Your task to perform on an android device: open app "The Home Depot" (install if not already installed) Image 0: 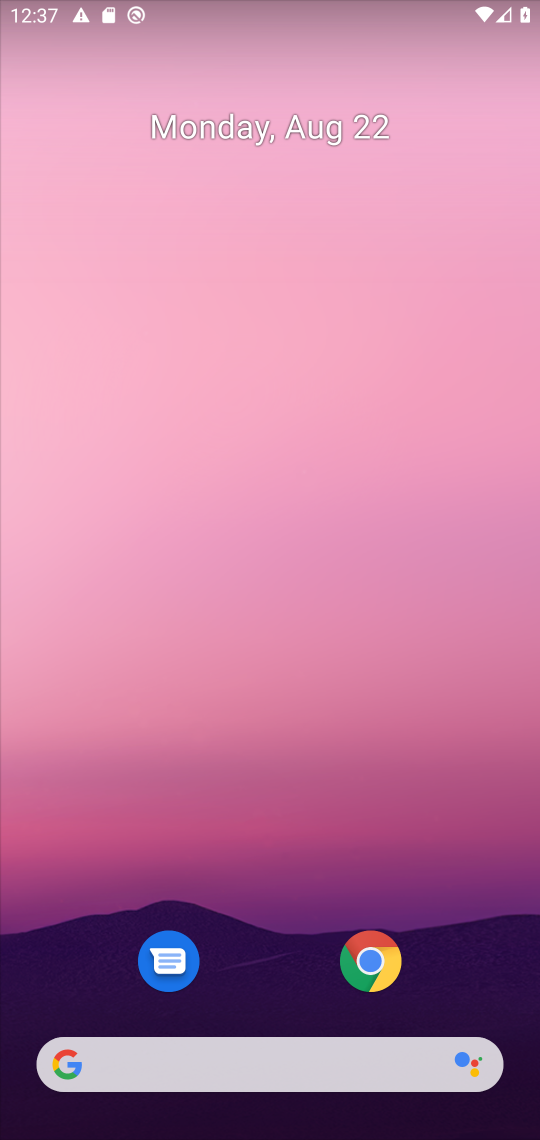
Step 0: drag from (493, 986) to (476, 147)
Your task to perform on an android device: open app "The Home Depot" (install if not already installed) Image 1: 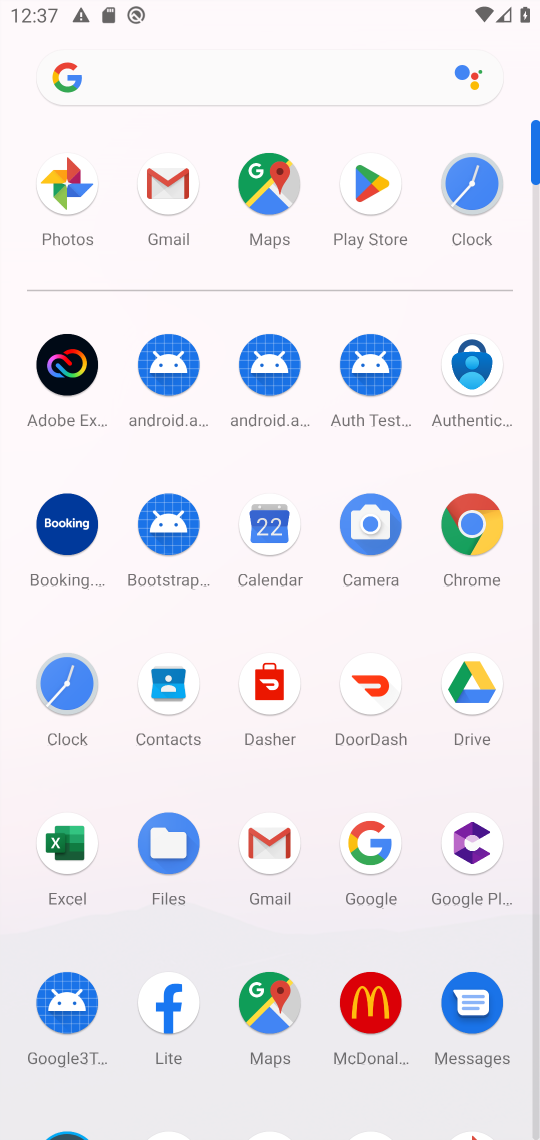
Step 1: click (367, 190)
Your task to perform on an android device: open app "The Home Depot" (install if not already installed) Image 2: 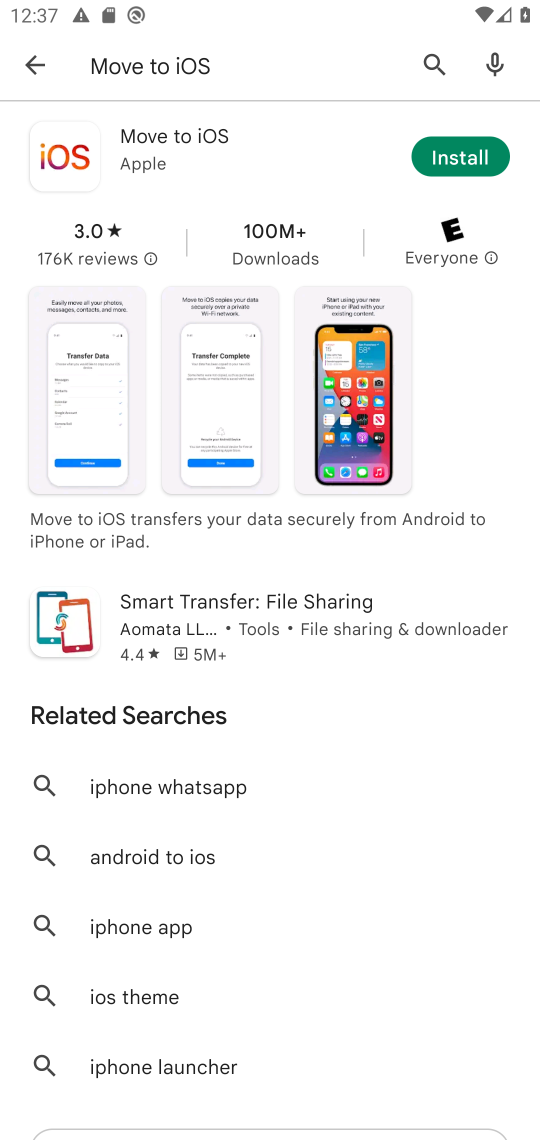
Step 2: press back button
Your task to perform on an android device: open app "The Home Depot" (install if not already installed) Image 3: 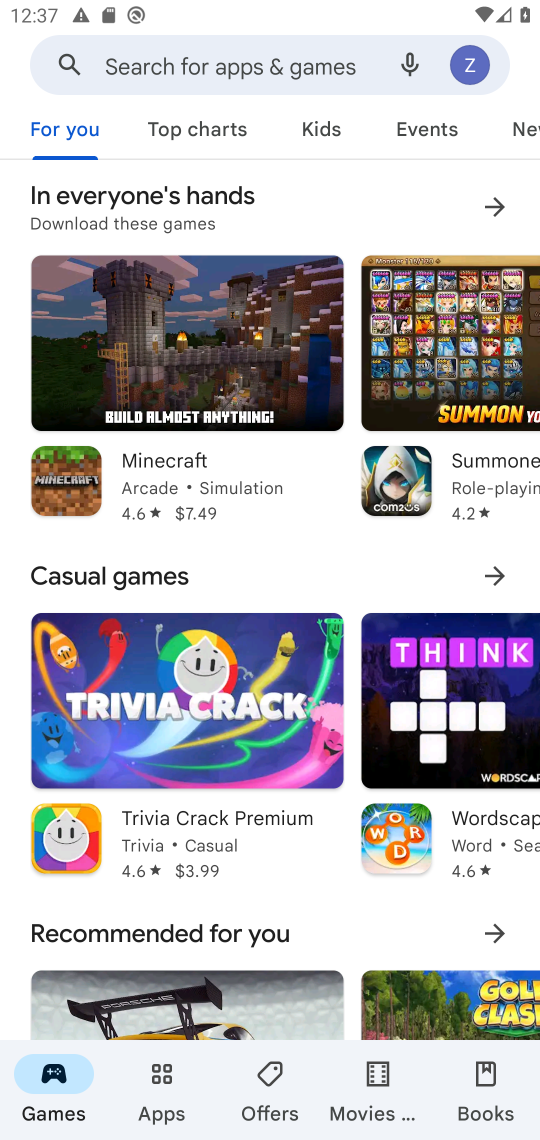
Step 3: click (150, 52)
Your task to perform on an android device: open app "The Home Depot" (install if not already installed) Image 4: 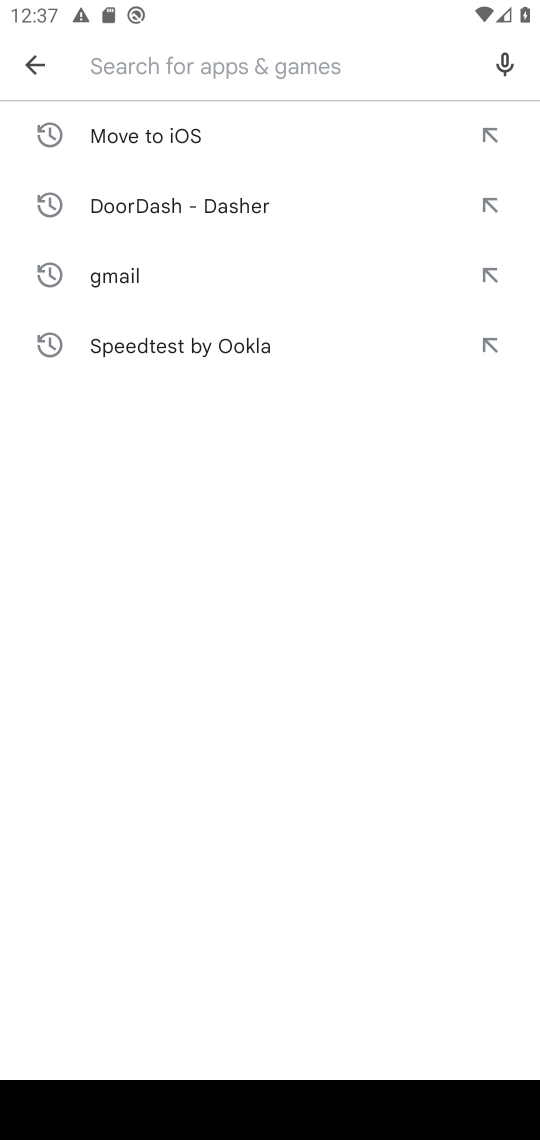
Step 4: type "The Home Depot"
Your task to perform on an android device: open app "The Home Depot" (install if not already installed) Image 5: 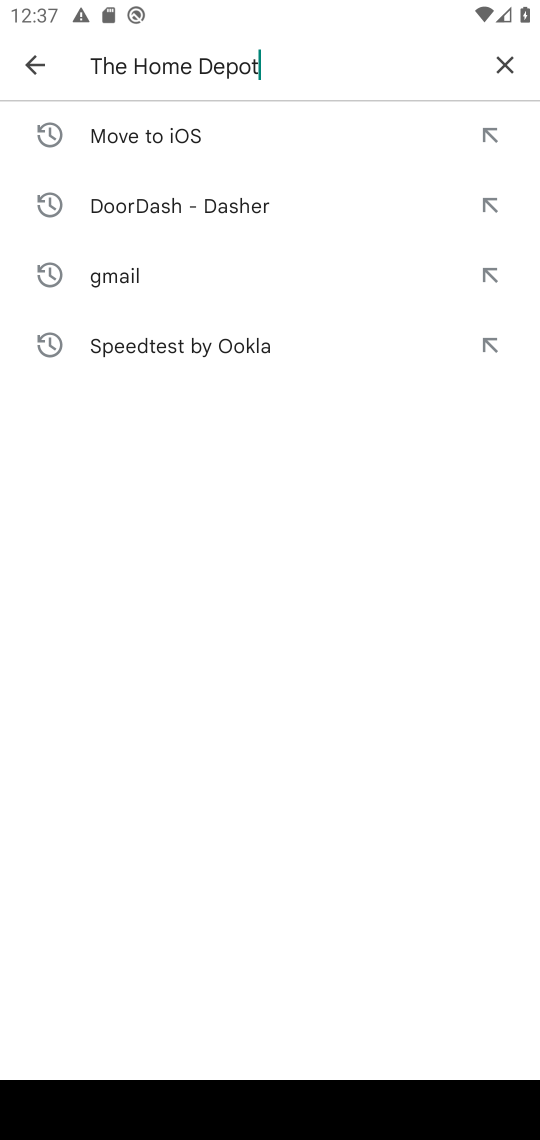
Step 5: press enter
Your task to perform on an android device: open app "The Home Depot" (install if not already installed) Image 6: 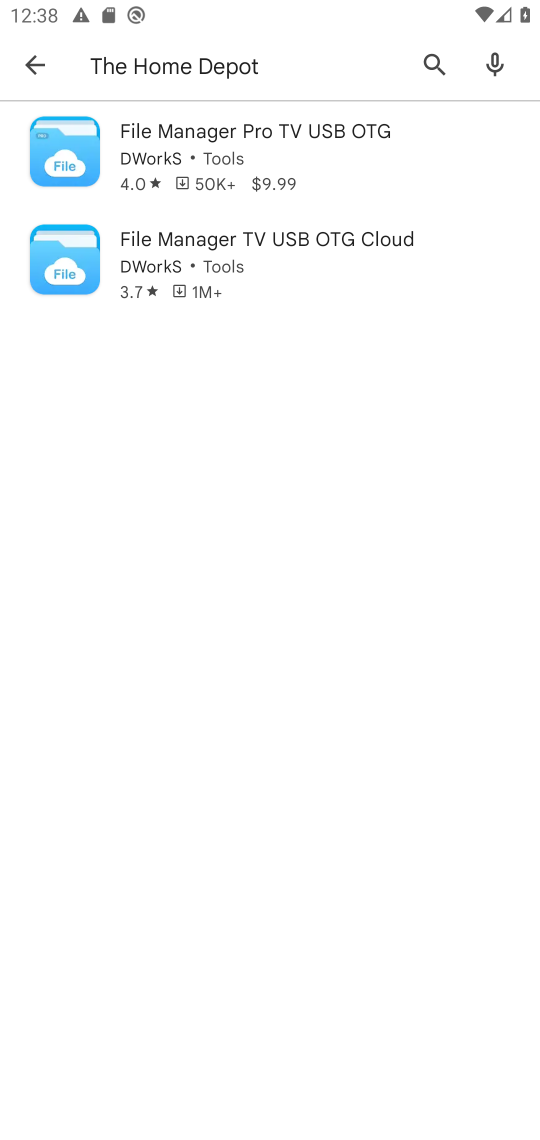
Step 6: task complete